Your task to perform on an android device: When is my next appointment? Image 0: 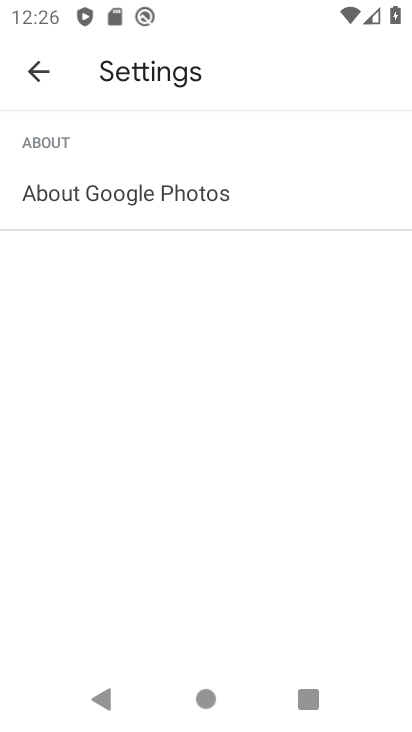
Step 0: press home button
Your task to perform on an android device: When is my next appointment? Image 1: 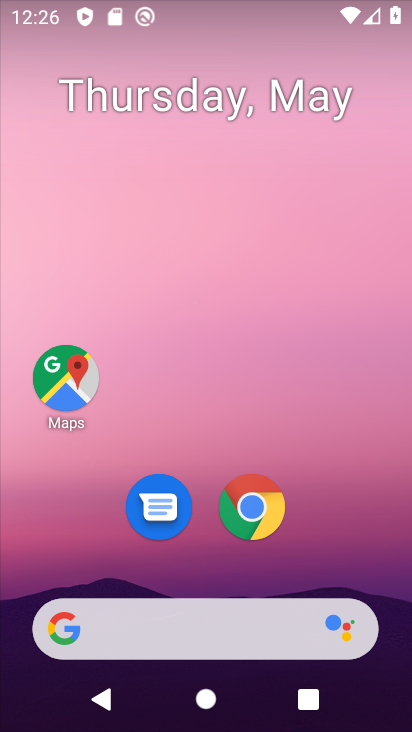
Step 1: drag from (194, 593) to (187, 235)
Your task to perform on an android device: When is my next appointment? Image 2: 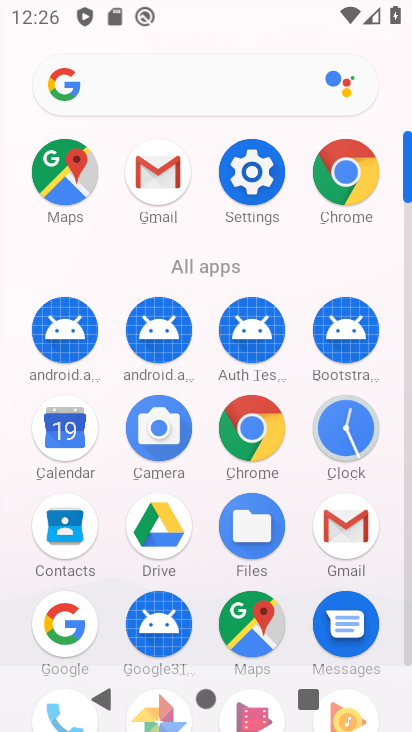
Step 2: click (341, 436)
Your task to perform on an android device: When is my next appointment? Image 3: 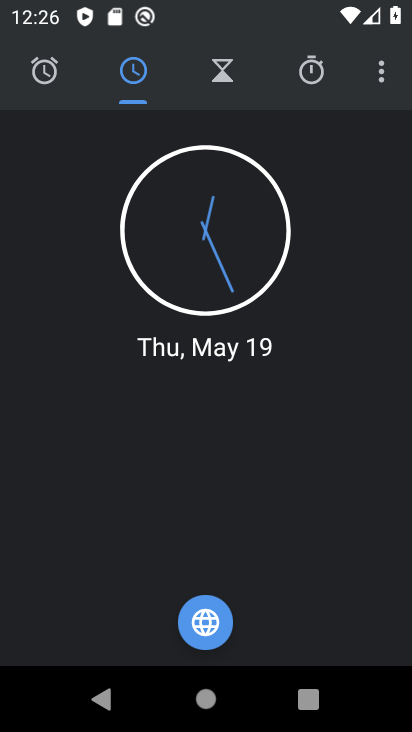
Step 3: press home button
Your task to perform on an android device: When is my next appointment? Image 4: 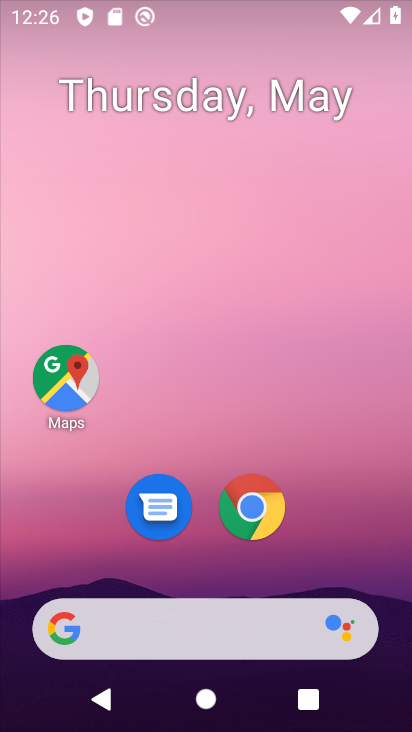
Step 4: drag from (126, 611) to (123, 234)
Your task to perform on an android device: When is my next appointment? Image 5: 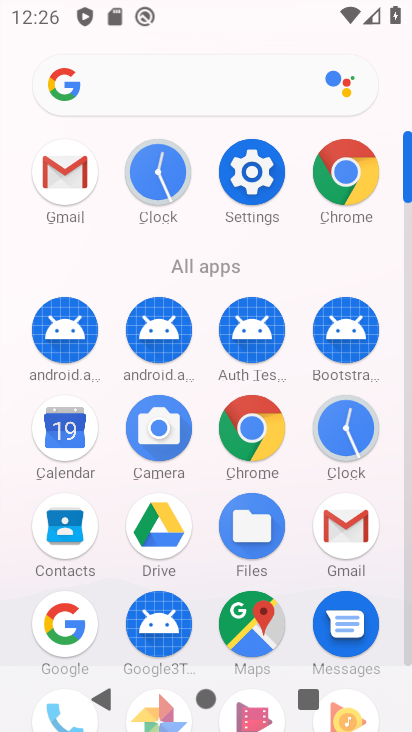
Step 5: click (56, 437)
Your task to perform on an android device: When is my next appointment? Image 6: 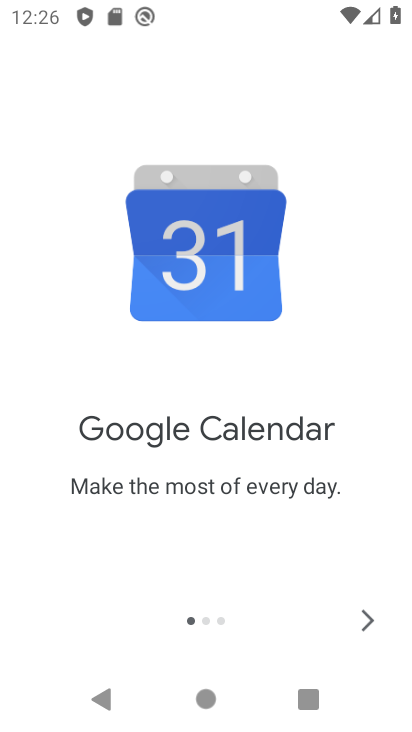
Step 6: click (368, 624)
Your task to perform on an android device: When is my next appointment? Image 7: 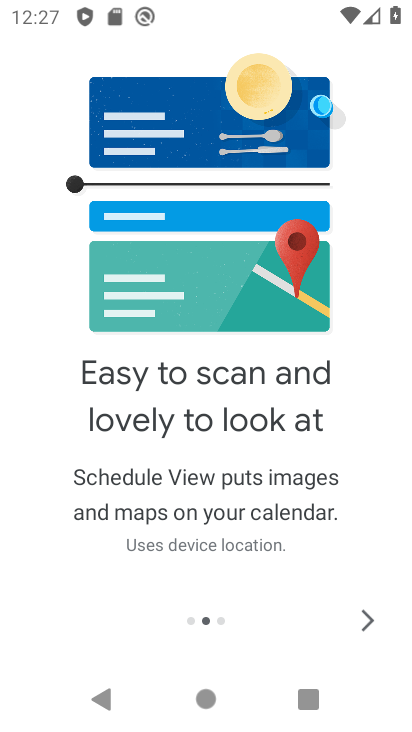
Step 7: click (367, 624)
Your task to perform on an android device: When is my next appointment? Image 8: 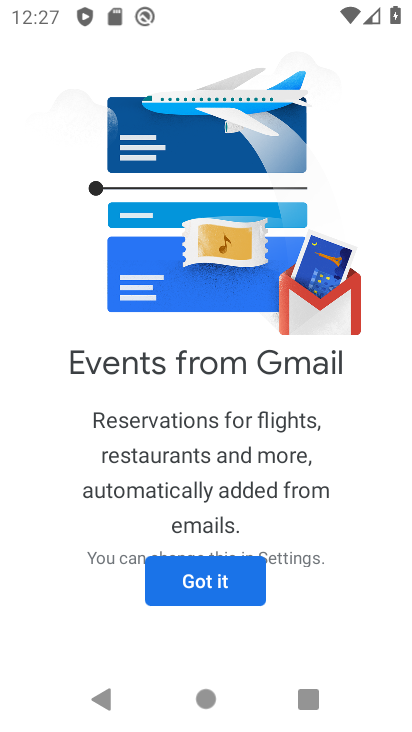
Step 8: click (226, 585)
Your task to perform on an android device: When is my next appointment? Image 9: 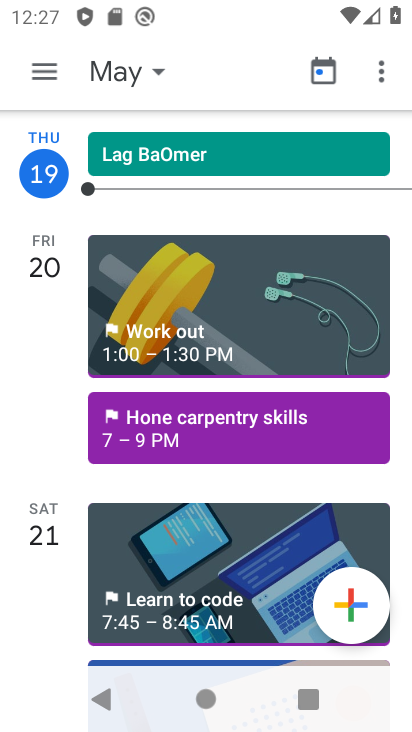
Step 9: click (162, 309)
Your task to perform on an android device: When is my next appointment? Image 10: 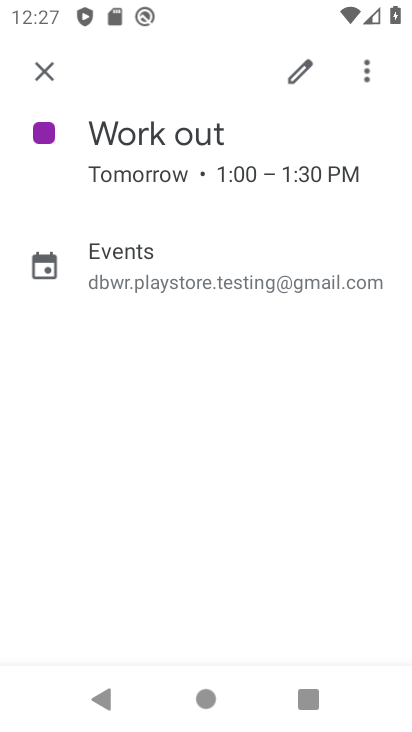
Step 10: task complete